Your task to perform on an android device: delete browsing data in the chrome app Image 0: 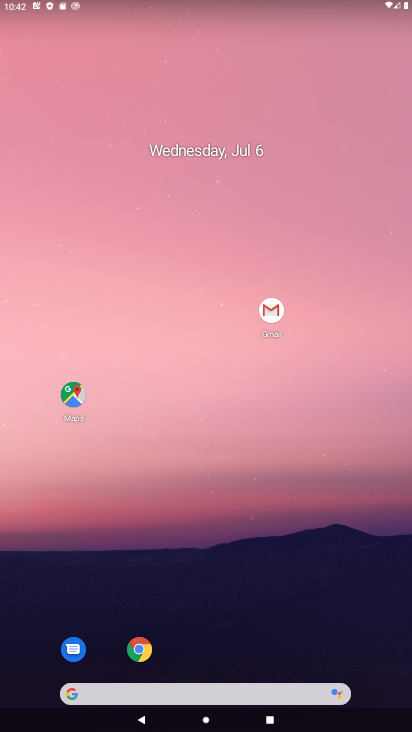
Step 0: click (149, 646)
Your task to perform on an android device: delete browsing data in the chrome app Image 1: 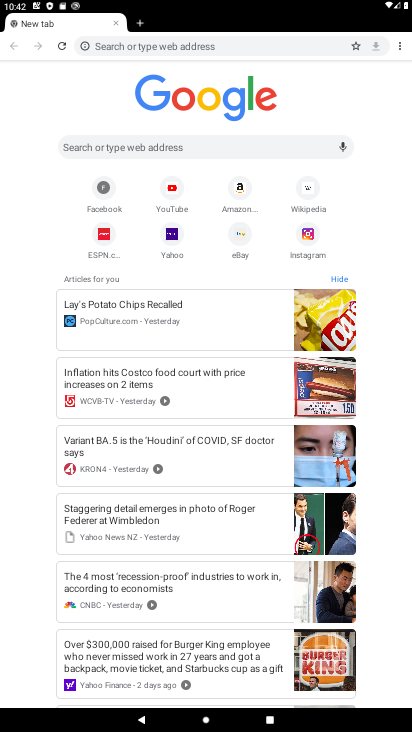
Step 1: click (401, 46)
Your task to perform on an android device: delete browsing data in the chrome app Image 2: 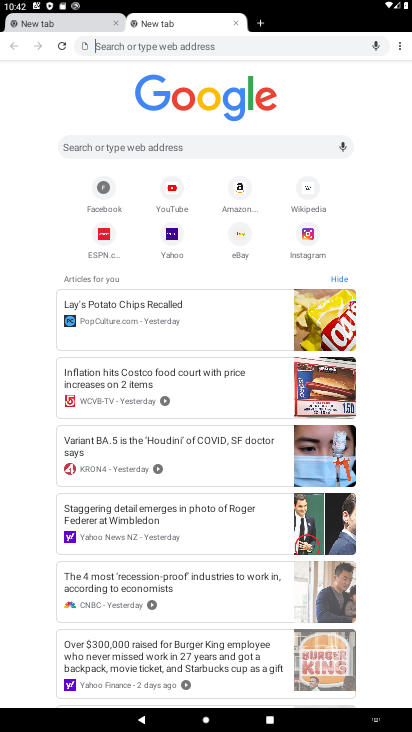
Step 2: click (403, 46)
Your task to perform on an android device: delete browsing data in the chrome app Image 3: 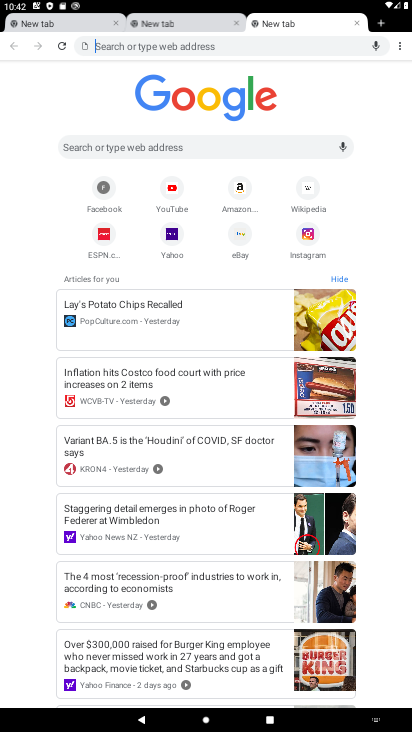
Step 3: click (397, 45)
Your task to perform on an android device: delete browsing data in the chrome app Image 4: 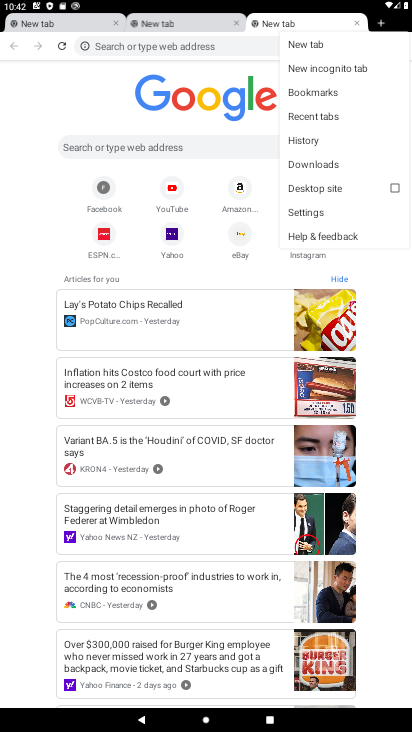
Step 4: click (312, 208)
Your task to perform on an android device: delete browsing data in the chrome app Image 5: 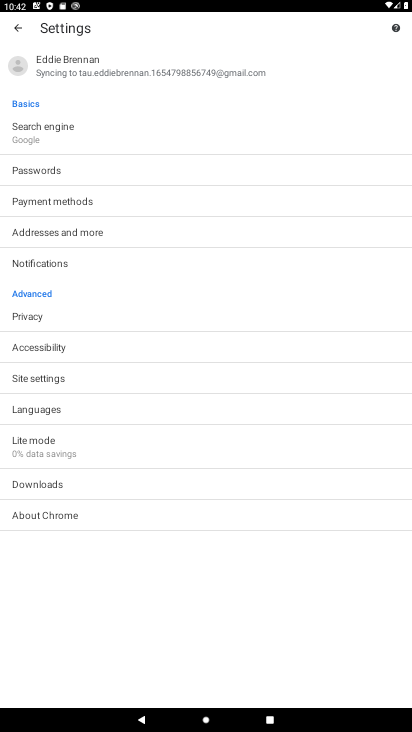
Step 5: click (120, 323)
Your task to perform on an android device: delete browsing data in the chrome app Image 6: 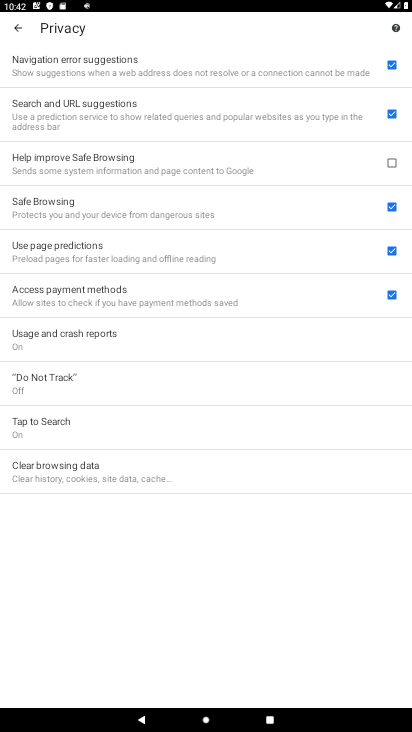
Step 6: click (118, 458)
Your task to perform on an android device: delete browsing data in the chrome app Image 7: 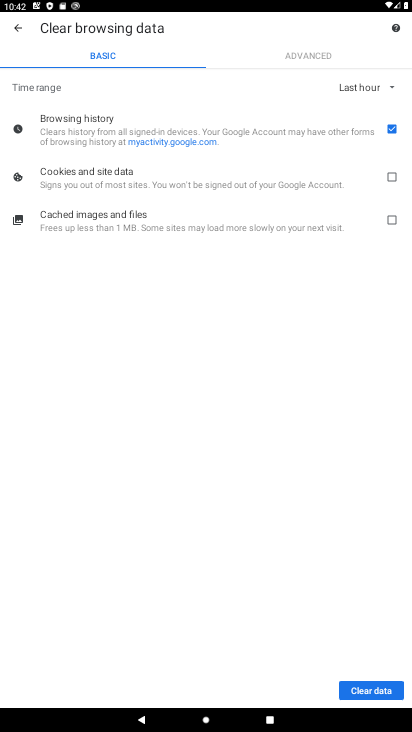
Step 7: click (374, 180)
Your task to perform on an android device: delete browsing data in the chrome app Image 8: 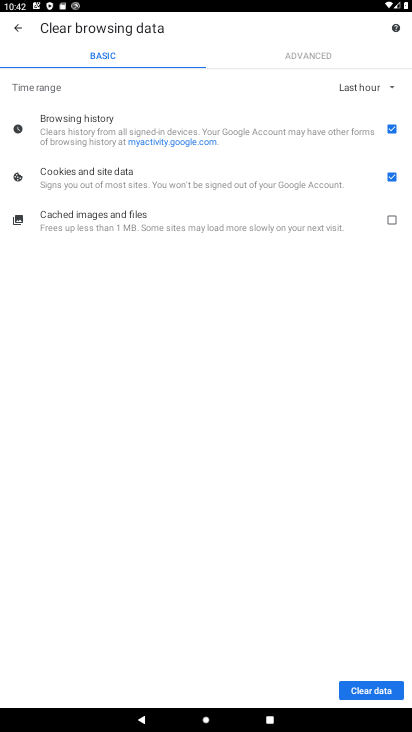
Step 8: click (384, 198)
Your task to perform on an android device: delete browsing data in the chrome app Image 9: 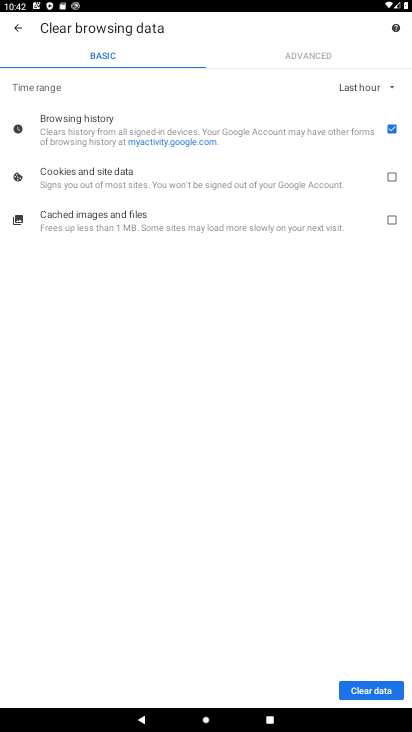
Step 9: click (291, 184)
Your task to perform on an android device: delete browsing data in the chrome app Image 10: 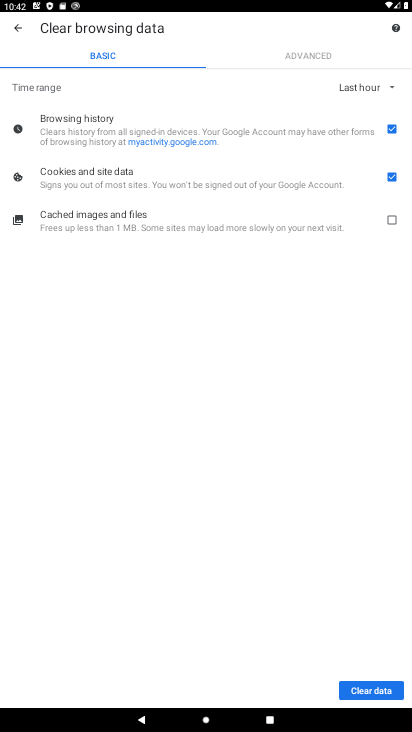
Step 10: click (386, 694)
Your task to perform on an android device: delete browsing data in the chrome app Image 11: 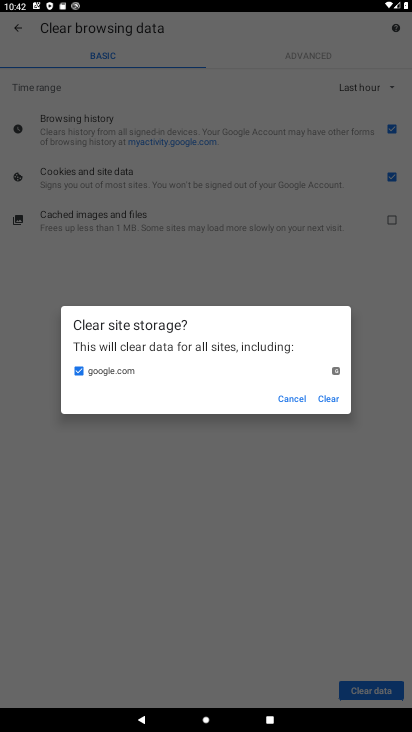
Step 11: click (326, 402)
Your task to perform on an android device: delete browsing data in the chrome app Image 12: 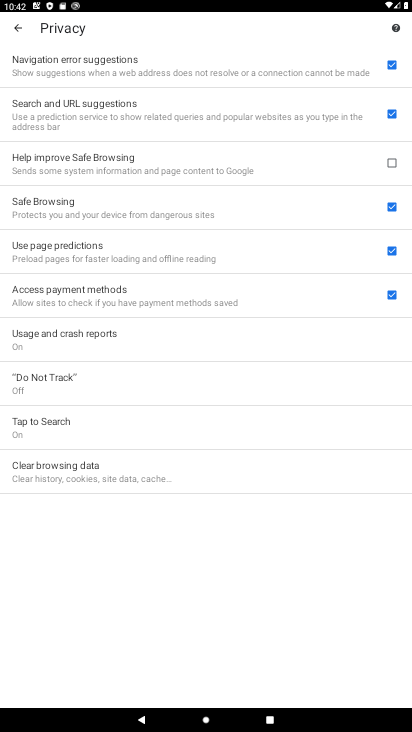
Step 12: task complete